Your task to perform on an android device: move a message to another label in the gmail app Image 0: 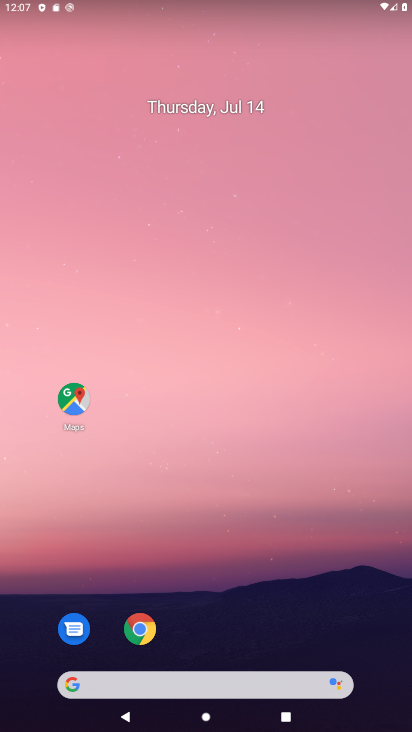
Step 0: drag from (252, 534) to (282, 1)
Your task to perform on an android device: move a message to another label in the gmail app Image 1: 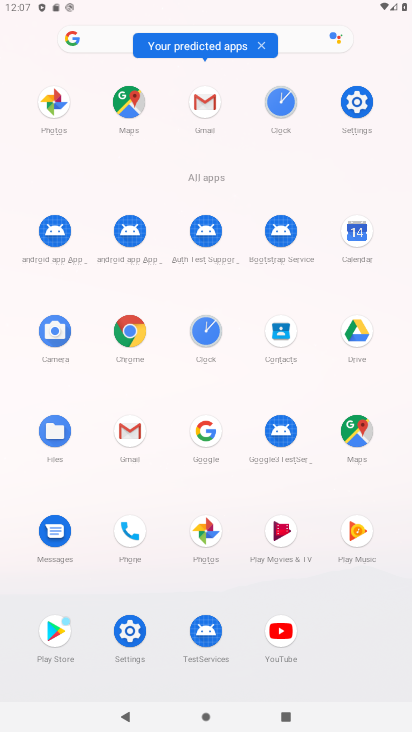
Step 1: click (207, 106)
Your task to perform on an android device: move a message to another label in the gmail app Image 2: 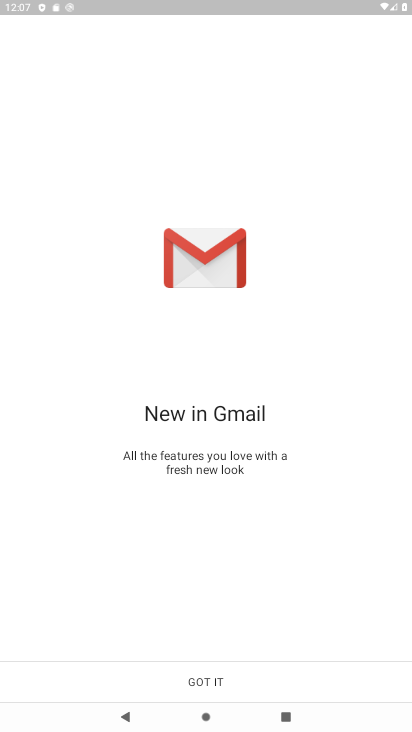
Step 2: click (193, 684)
Your task to perform on an android device: move a message to another label in the gmail app Image 3: 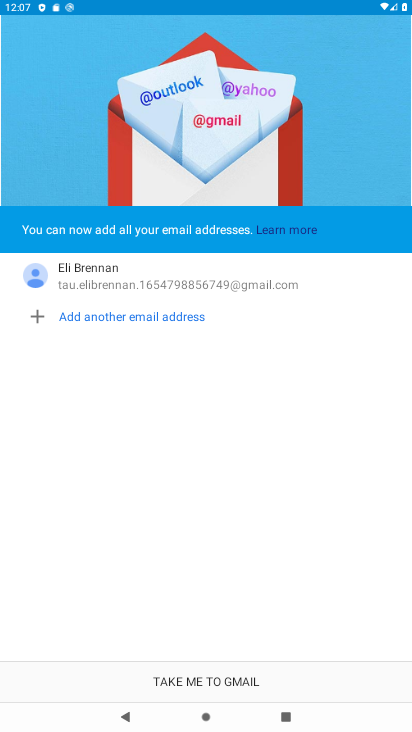
Step 3: click (193, 684)
Your task to perform on an android device: move a message to another label in the gmail app Image 4: 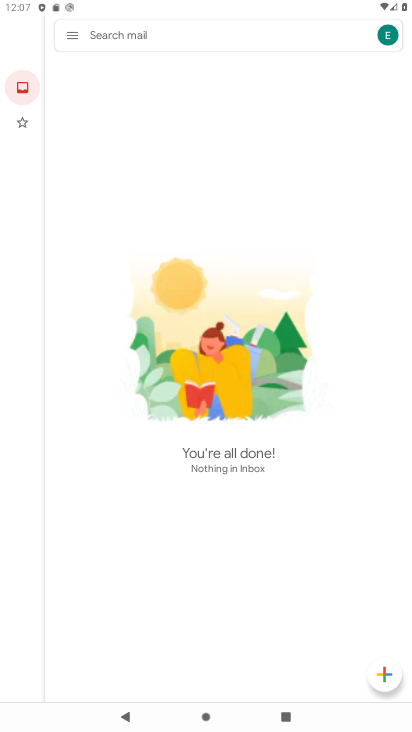
Step 4: task complete